Your task to perform on an android device: turn pop-ups on in chrome Image 0: 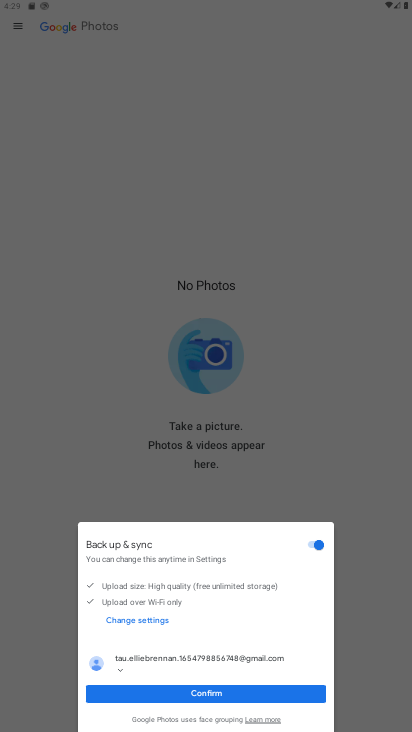
Step 0: press home button
Your task to perform on an android device: turn pop-ups on in chrome Image 1: 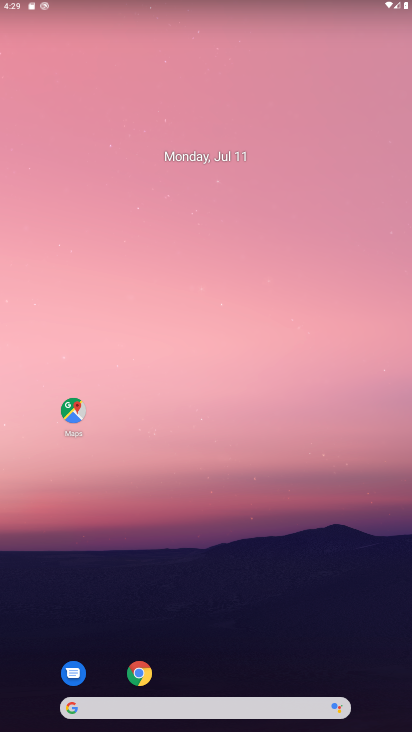
Step 1: click (137, 673)
Your task to perform on an android device: turn pop-ups on in chrome Image 2: 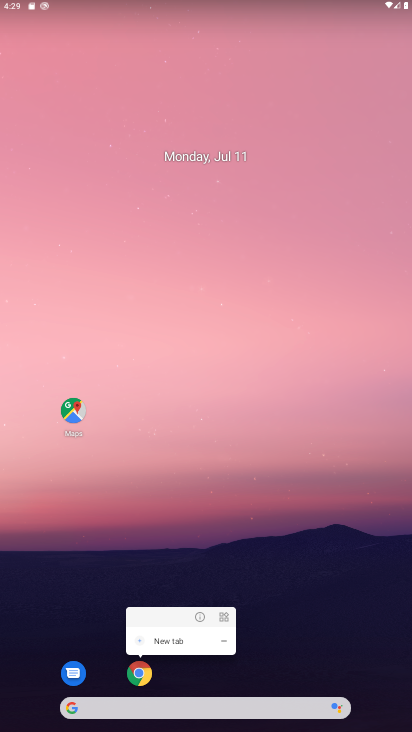
Step 2: click (138, 675)
Your task to perform on an android device: turn pop-ups on in chrome Image 3: 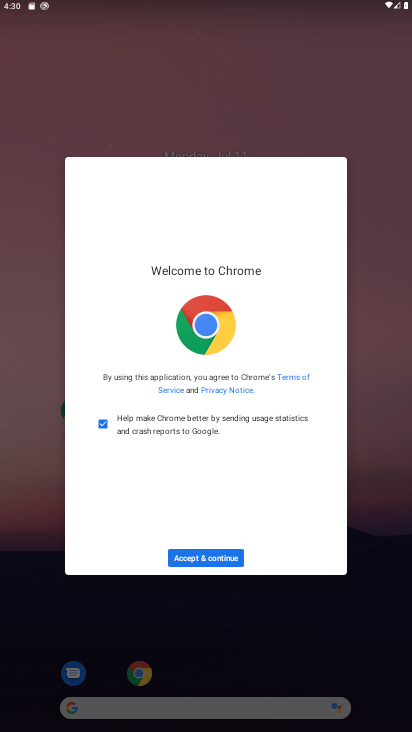
Step 3: click (212, 556)
Your task to perform on an android device: turn pop-ups on in chrome Image 4: 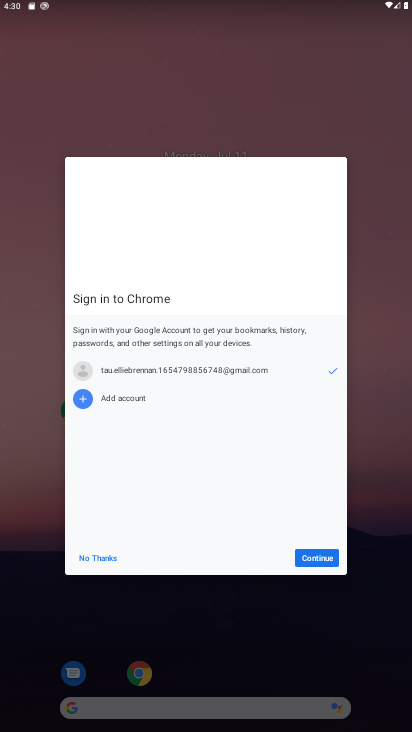
Step 4: click (311, 562)
Your task to perform on an android device: turn pop-ups on in chrome Image 5: 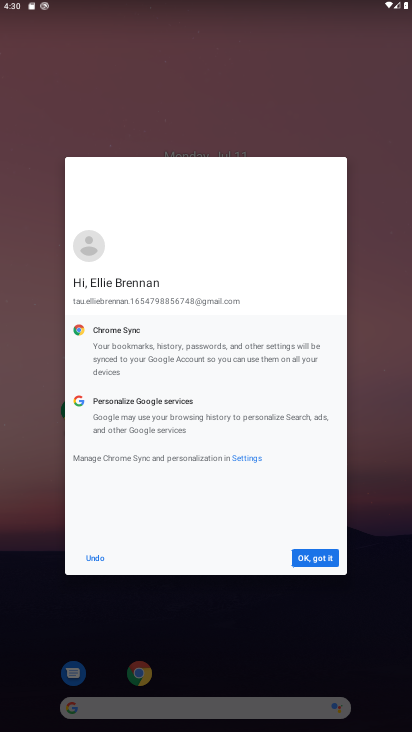
Step 5: click (311, 562)
Your task to perform on an android device: turn pop-ups on in chrome Image 6: 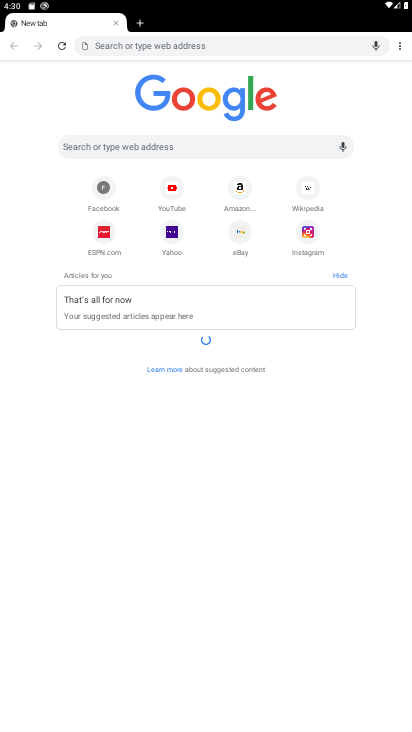
Step 6: click (400, 44)
Your task to perform on an android device: turn pop-ups on in chrome Image 7: 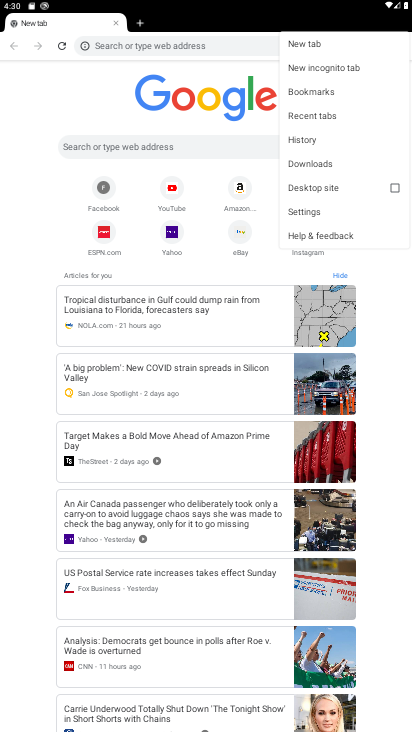
Step 7: click (303, 209)
Your task to perform on an android device: turn pop-ups on in chrome Image 8: 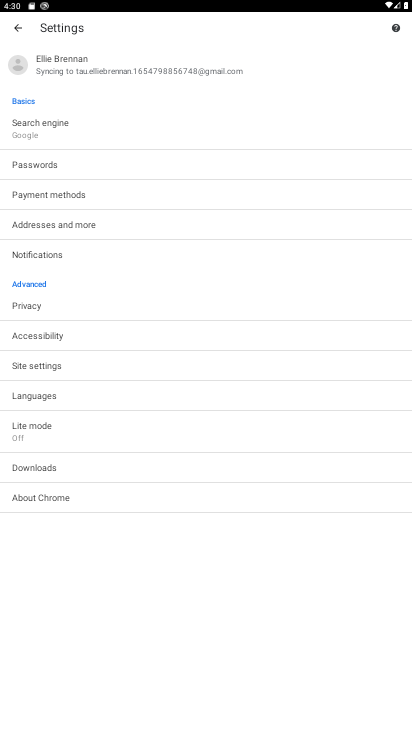
Step 8: click (33, 362)
Your task to perform on an android device: turn pop-ups on in chrome Image 9: 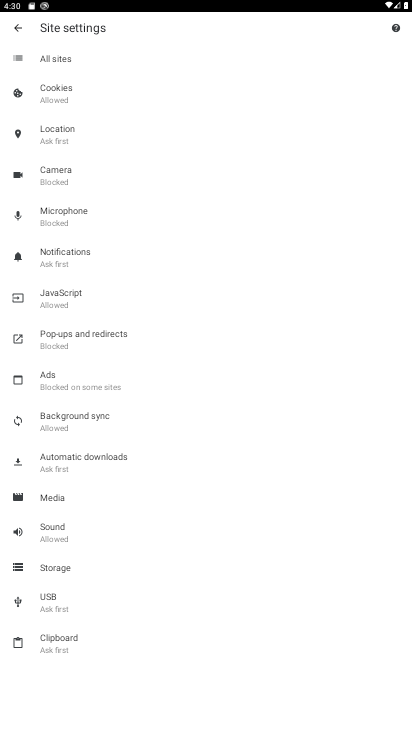
Step 9: click (81, 333)
Your task to perform on an android device: turn pop-ups on in chrome Image 10: 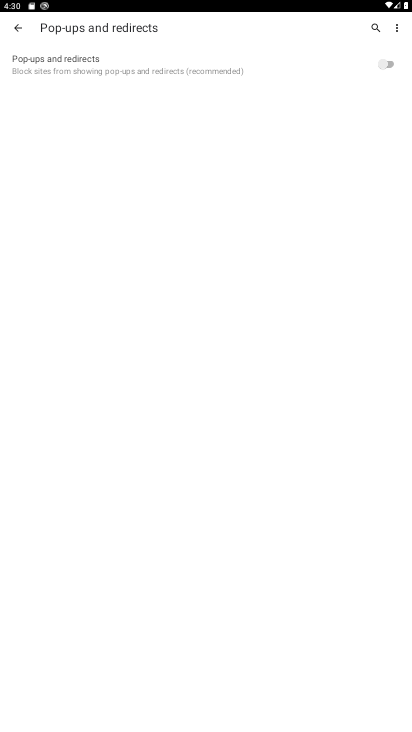
Step 10: click (385, 63)
Your task to perform on an android device: turn pop-ups on in chrome Image 11: 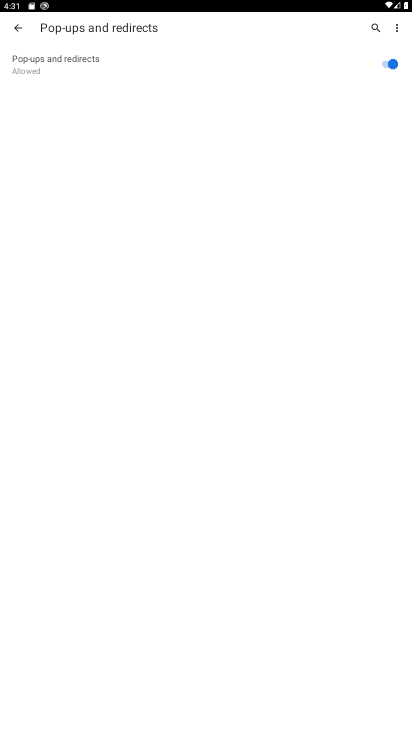
Step 11: task complete